Your task to perform on an android device: toggle show notifications on the lock screen Image 0: 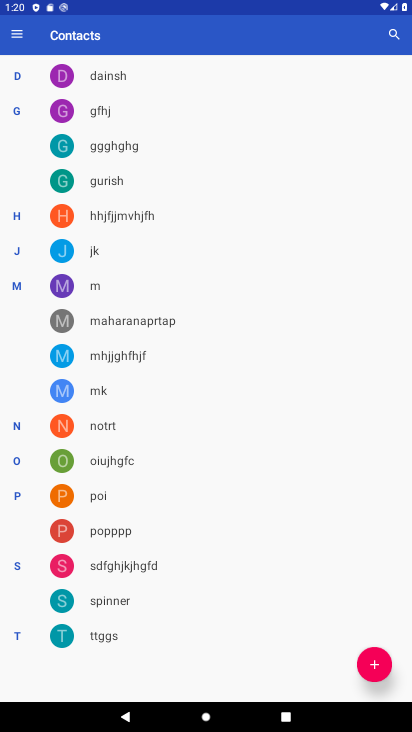
Step 0: press home button
Your task to perform on an android device: toggle show notifications on the lock screen Image 1: 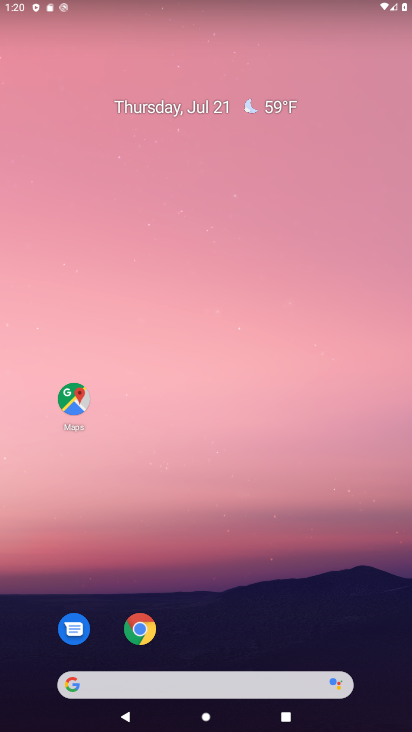
Step 1: drag from (253, 600) to (244, 36)
Your task to perform on an android device: toggle show notifications on the lock screen Image 2: 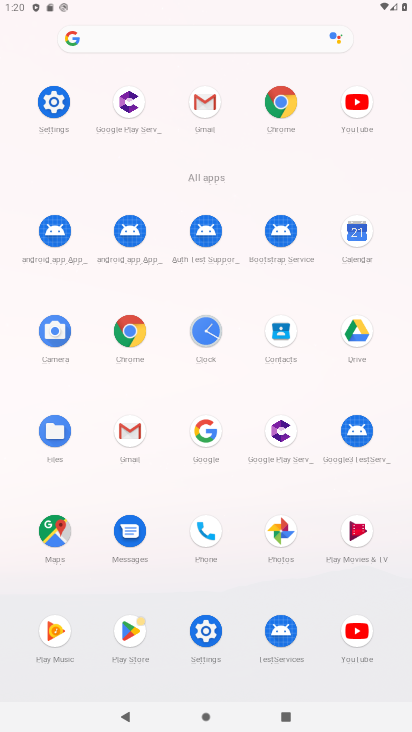
Step 2: click (57, 92)
Your task to perform on an android device: toggle show notifications on the lock screen Image 3: 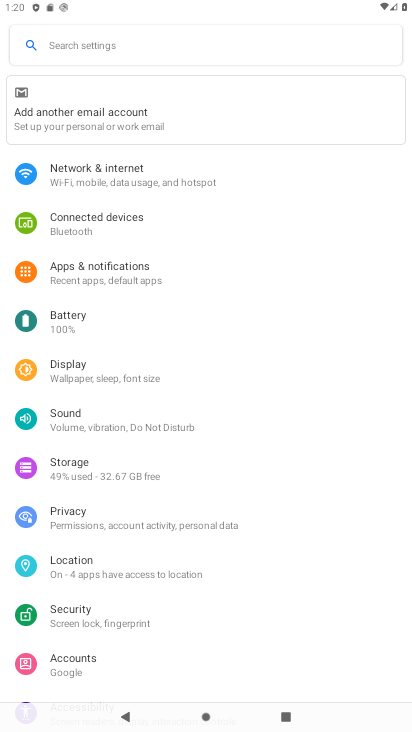
Step 3: click (133, 271)
Your task to perform on an android device: toggle show notifications on the lock screen Image 4: 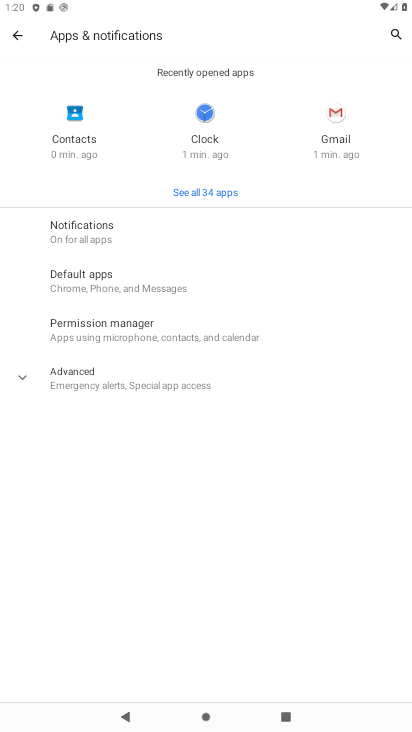
Step 4: click (117, 226)
Your task to perform on an android device: toggle show notifications on the lock screen Image 5: 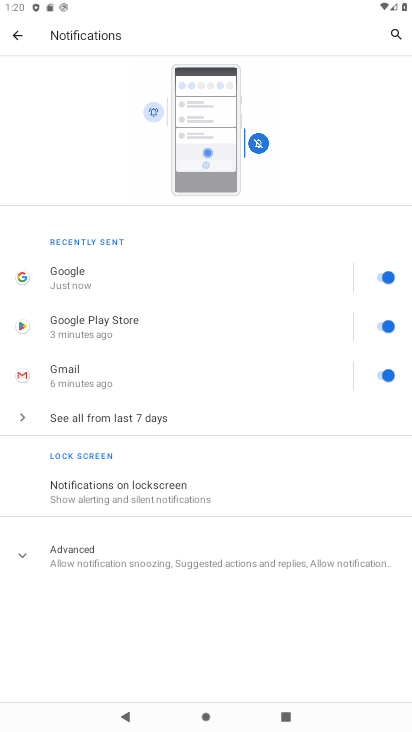
Step 5: click (82, 486)
Your task to perform on an android device: toggle show notifications on the lock screen Image 6: 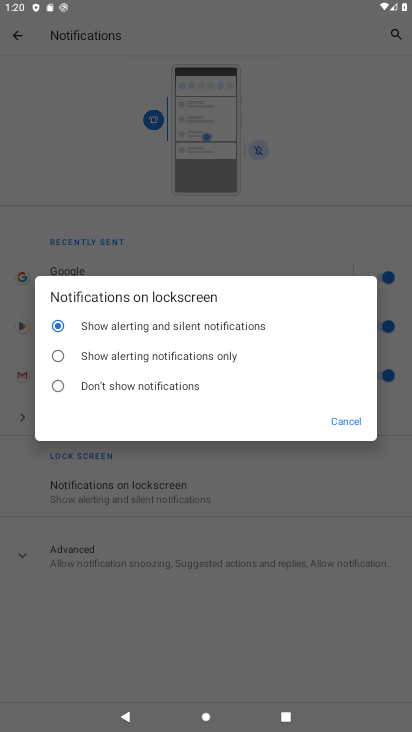
Step 6: click (123, 352)
Your task to perform on an android device: toggle show notifications on the lock screen Image 7: 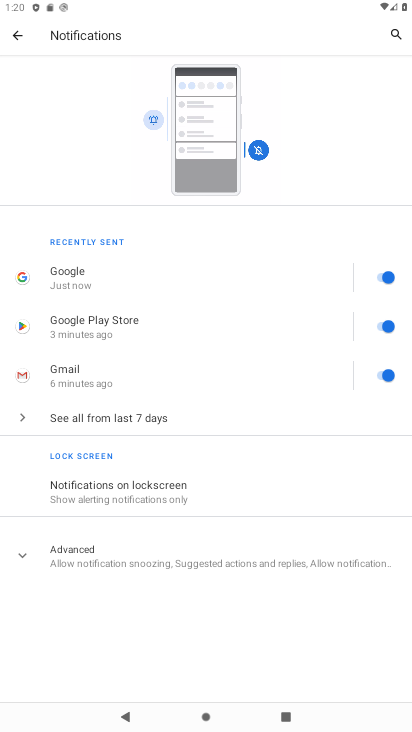
Step 7: task complete